Your task to perform on an android device: Is it going to rain tomorrow? Image 0: 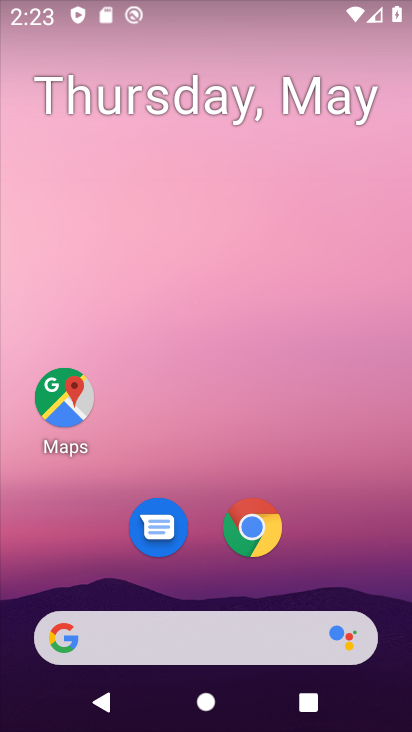
Step 0: click (268, 543)
Your task to perform on an android device: Is it going to rain tomorrow? Image 1: 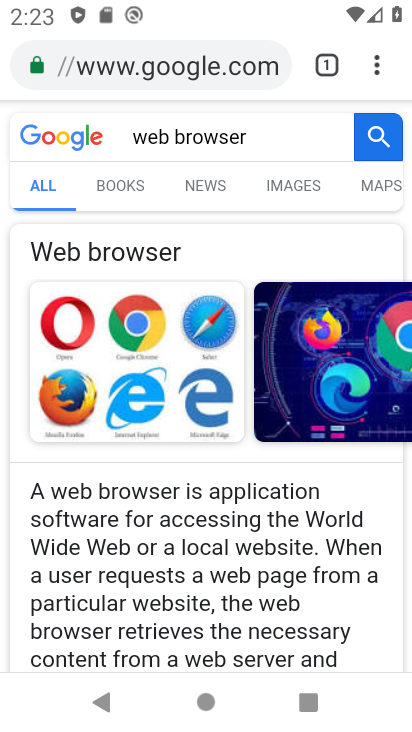
Step 1: click (172, 83)
Your task to perform on an android device: Is it going to rain tomorrow? Image 2: 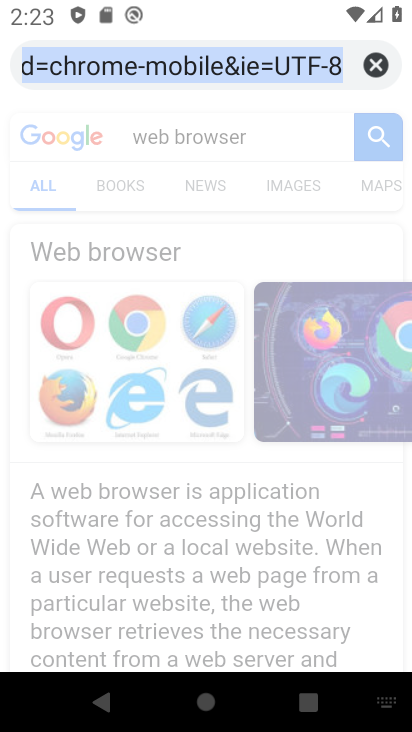
Step 2: click (375, 63)
Your task to perform on an android device: Is it going to rain tomorrow? Image 3: 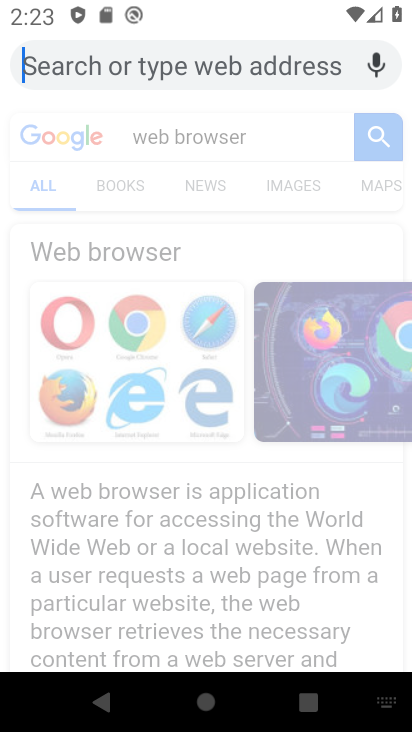
Step 3: type "Is it going to rain tomorrow?"
Your task to perform on an android device: Is it going to rain tomorrow? Image 4: 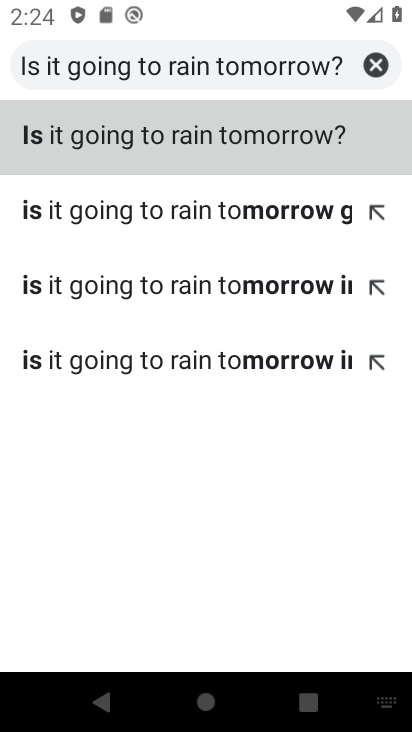
Step 4: click (335, 129)
Your task to perform on an android device: Is it going to rain tomorrow? Image 5: 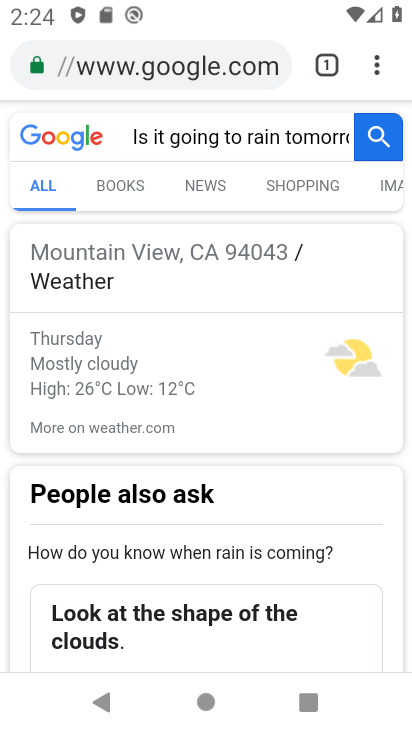
Step 5: task complete